Your task to perform on an android device: Clear all items from cart on newegg.com. Add "usb-a to usb-b" to the cart on newegg.com, then select checkout. Image 0: 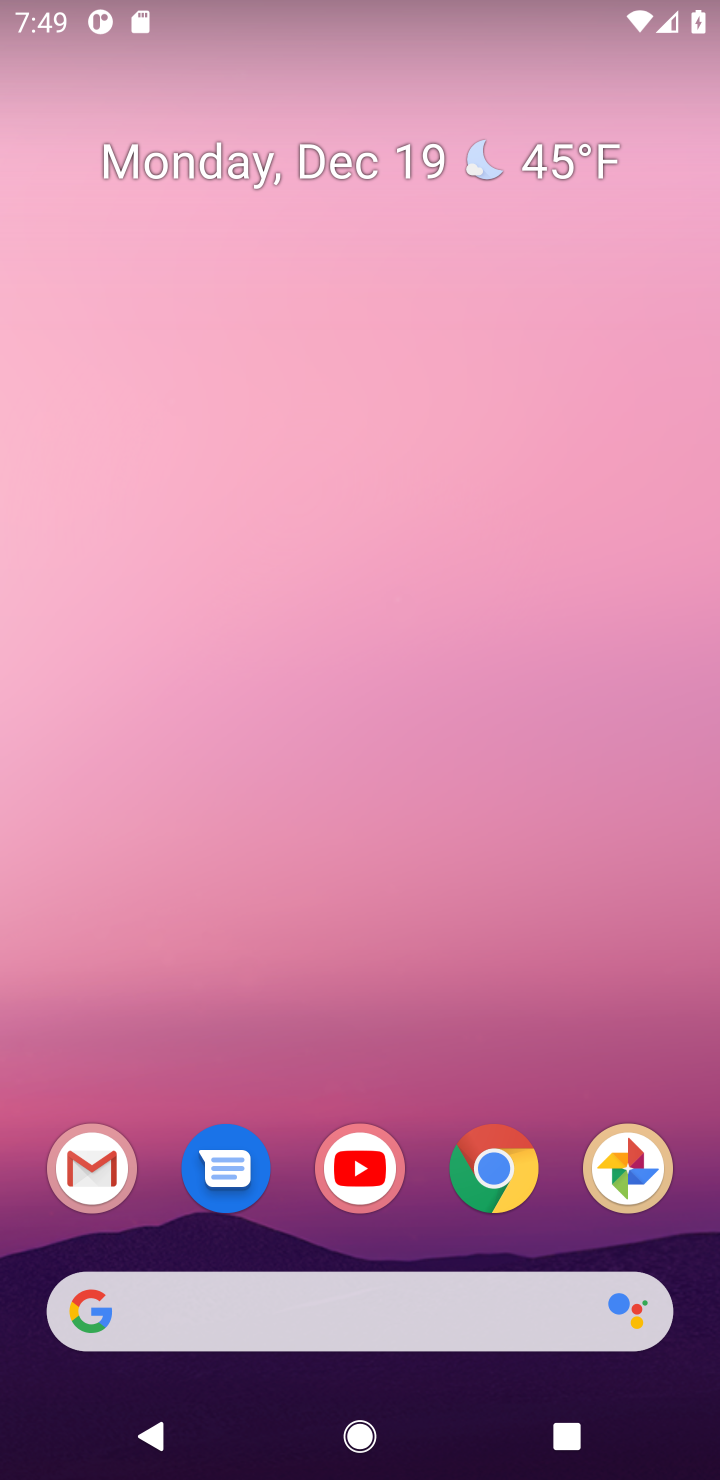
Step 0: click (499, 1162)
Your task to perform on an android device: Clear all items from cart on newegg.com. Add "usb-a to usb-b" to the cart on newegg.com, then select checkout. Image 1: 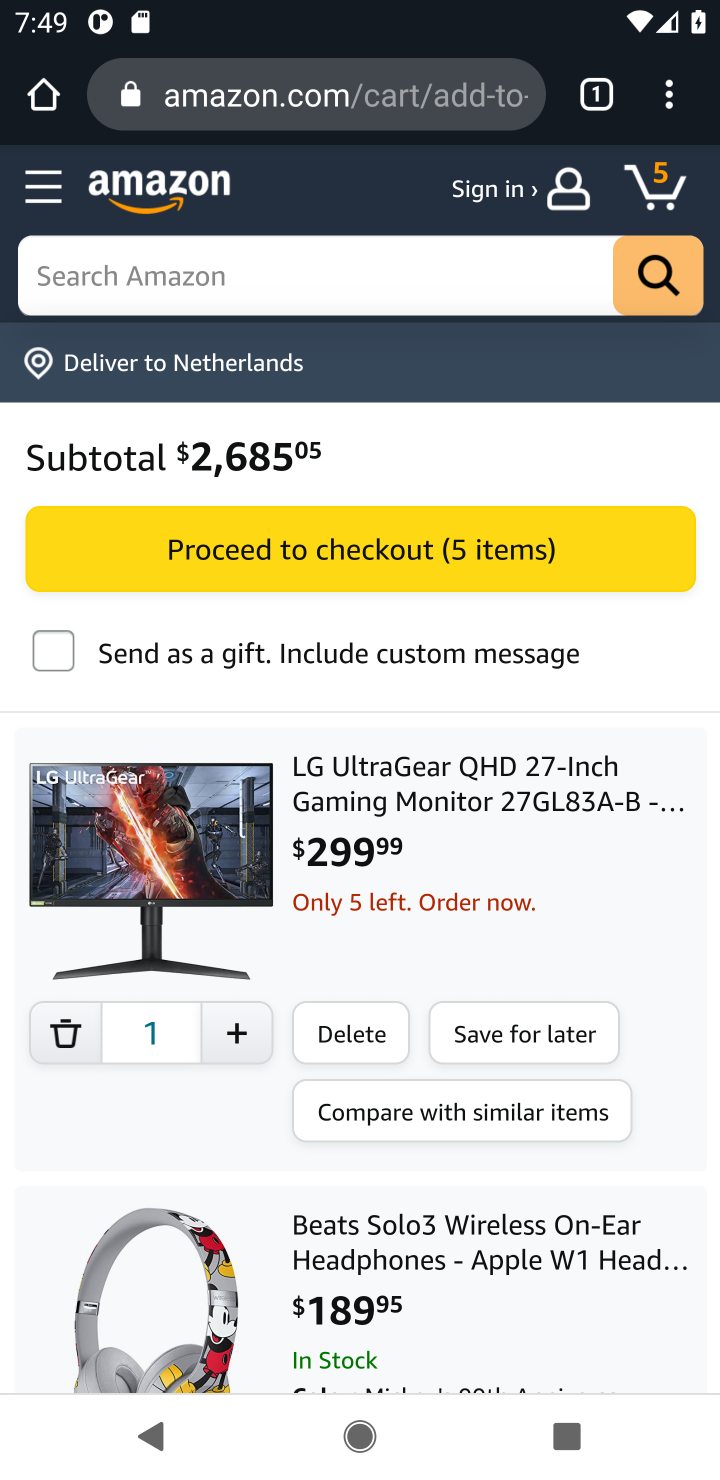
Step 1: click (269, 105)
Your task to perform on an android device: Clear all items from cart on newegg.com. Add "usb-a to usb-b" to the cart on newegg.com, then select checkout. Image 2: 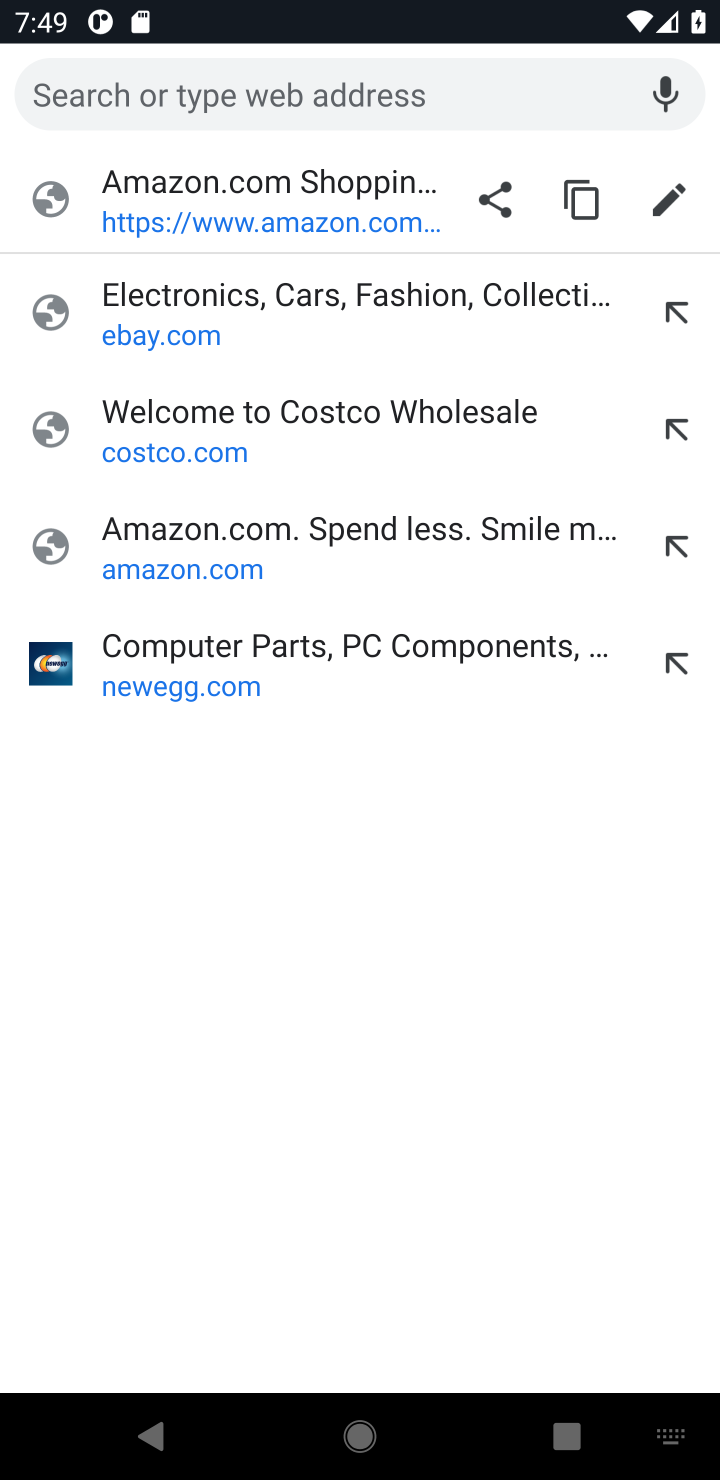
Step 2: click (143, 655)
Your task to perform on an android device: Clear all items from cart on newegg.com. Add "usb-a to usb-b" to the cart on newegg.com, then select checkout. Image 3: 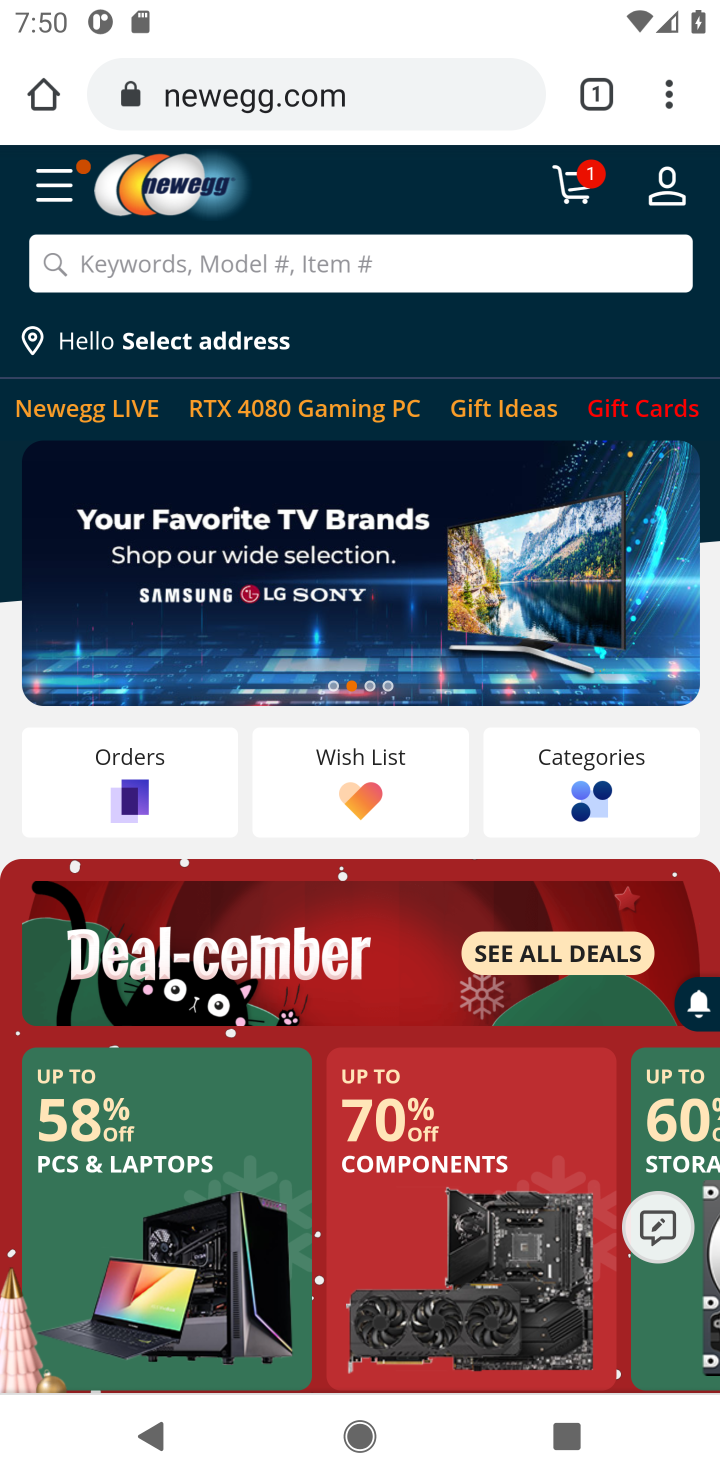
Step 3: click (572, 196)
Your task to perform on an android device: Clear all items from cart on newegg.com. Add "usb-a to usb-b" to the cart on newegg.com, then select checkout. Image 4: 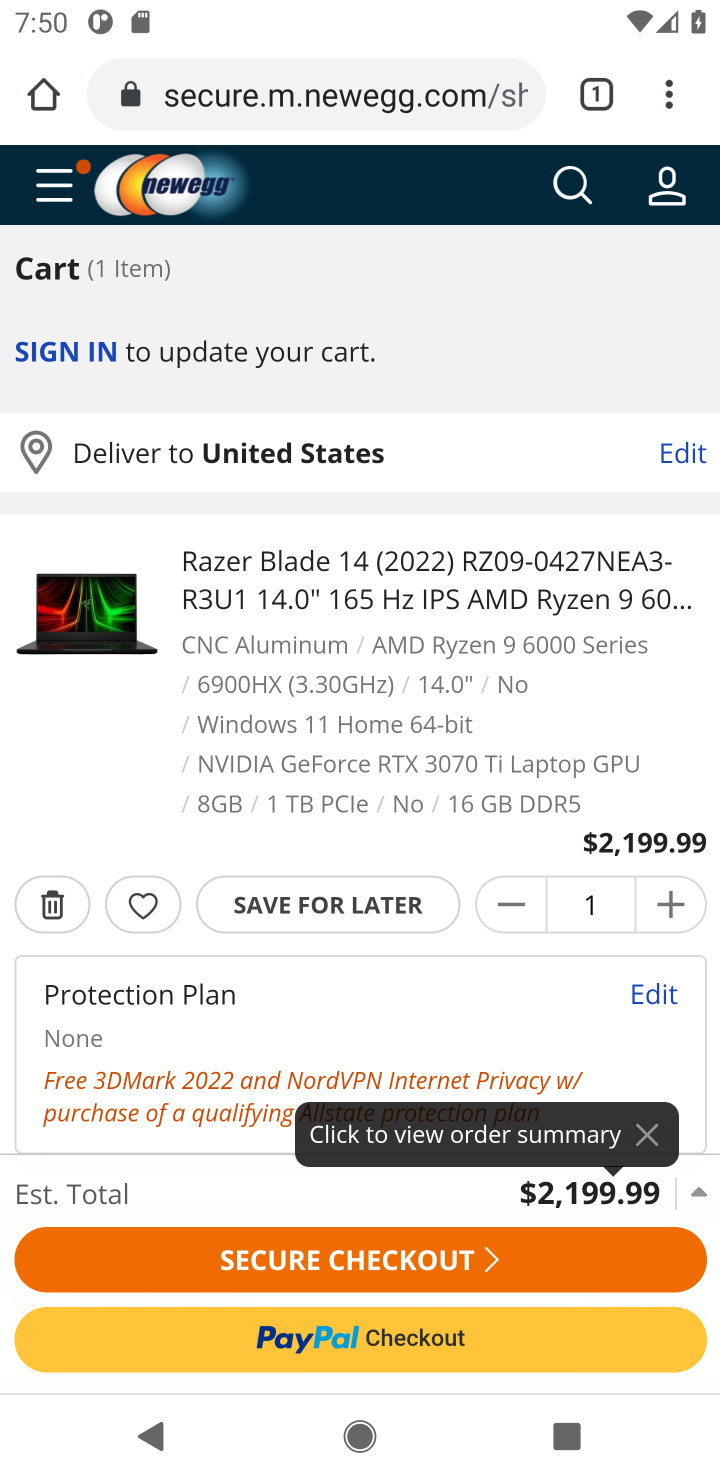
Step 4: click (50, 905)
Your task to perform on an android device: Clear all items from cart on newegg.com. Add "usb-a to usb-b" to the cart on newegg.com, then select checkout. Image 5: 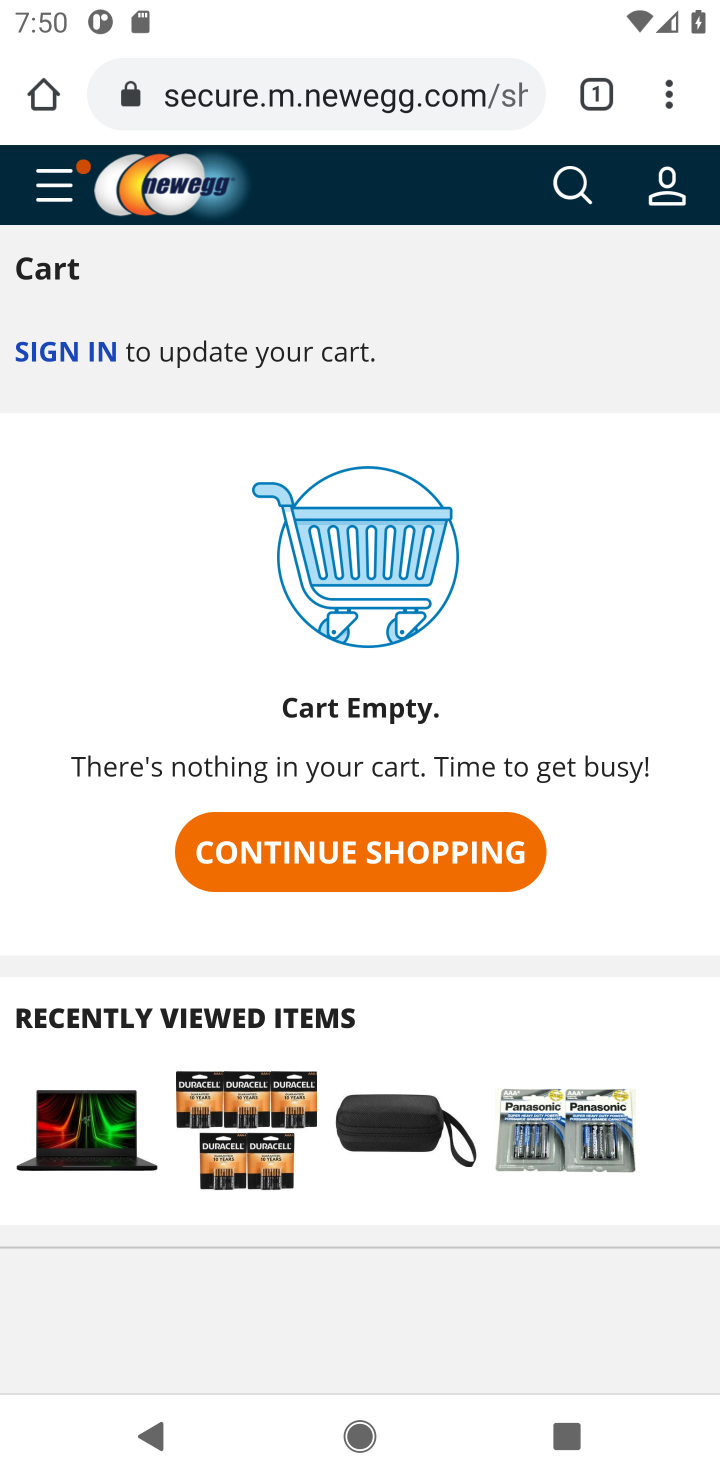
Step 5: click (560, 192)
Your task to perform on an android device: Clear all items from cart on newegg.com. Add "usb-a to usb-b" to the cart on newegg.com, then select checkout. Image 6: 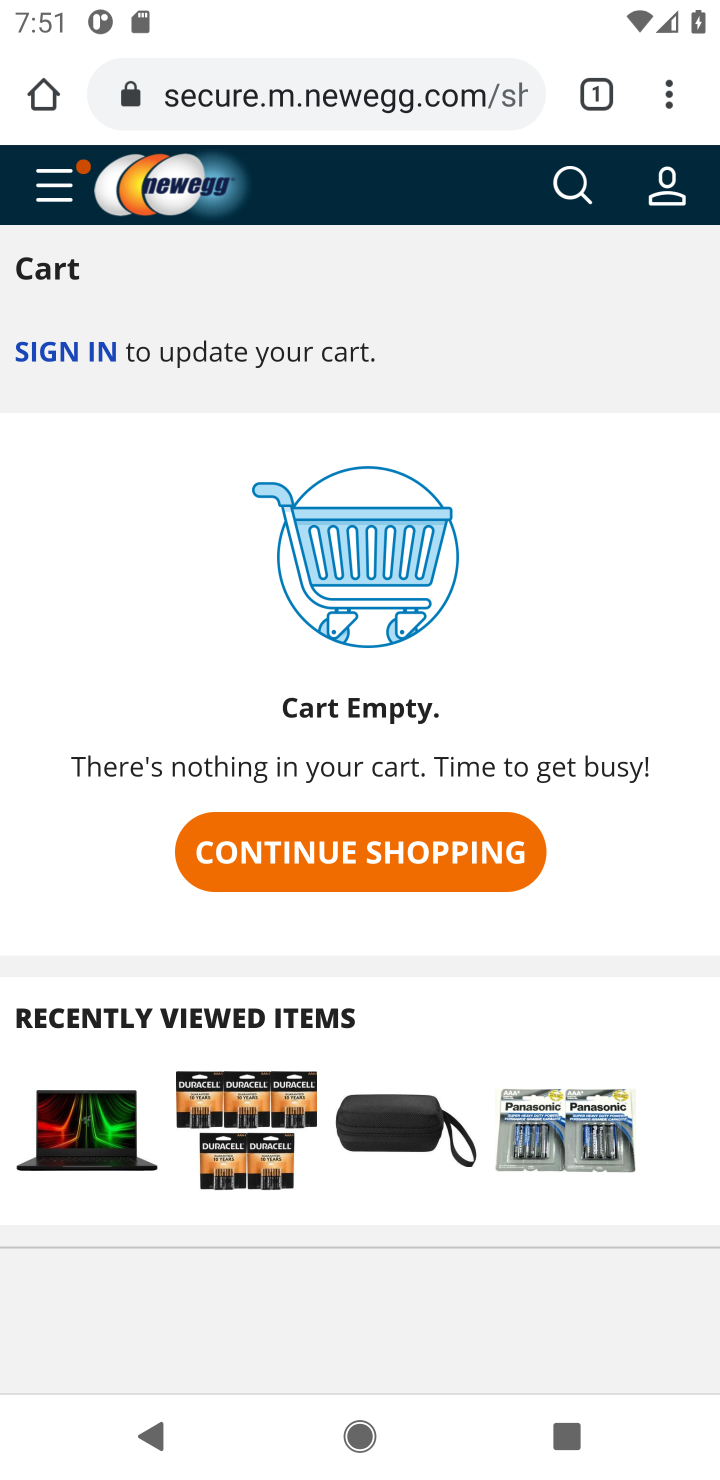
Step 6: click (560, 192)
Your task to perform on an android device: Clear all items from cart on newegg.com. Add "usb-a to usb-b" to the cart on newegg.com, then select checkout. Image 7: 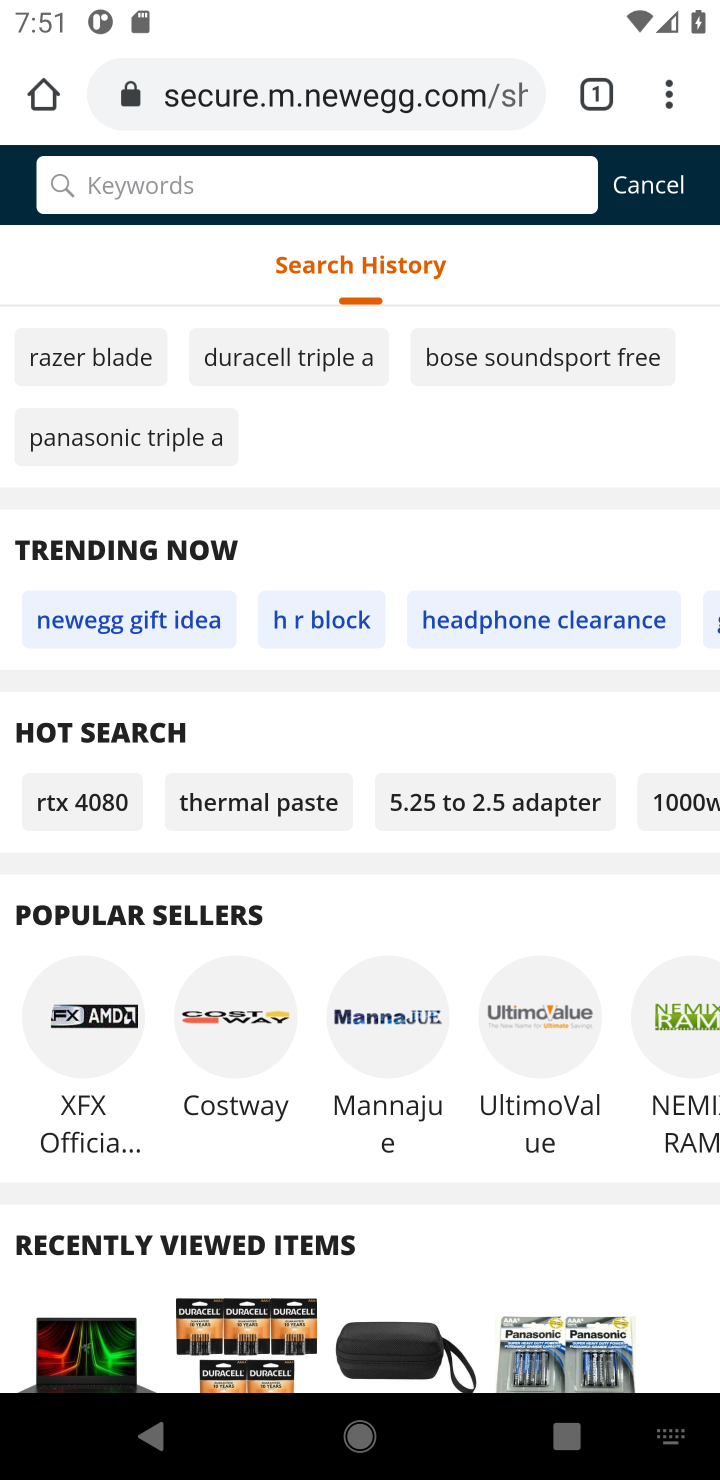
Step 7: type "usb-a to usb-b"
Your task to perform on an android device: Clear all items from cart on newegg.com. Add "usb-a to usb-b" to the cart on newegg.com, then select checkout. Image 8: 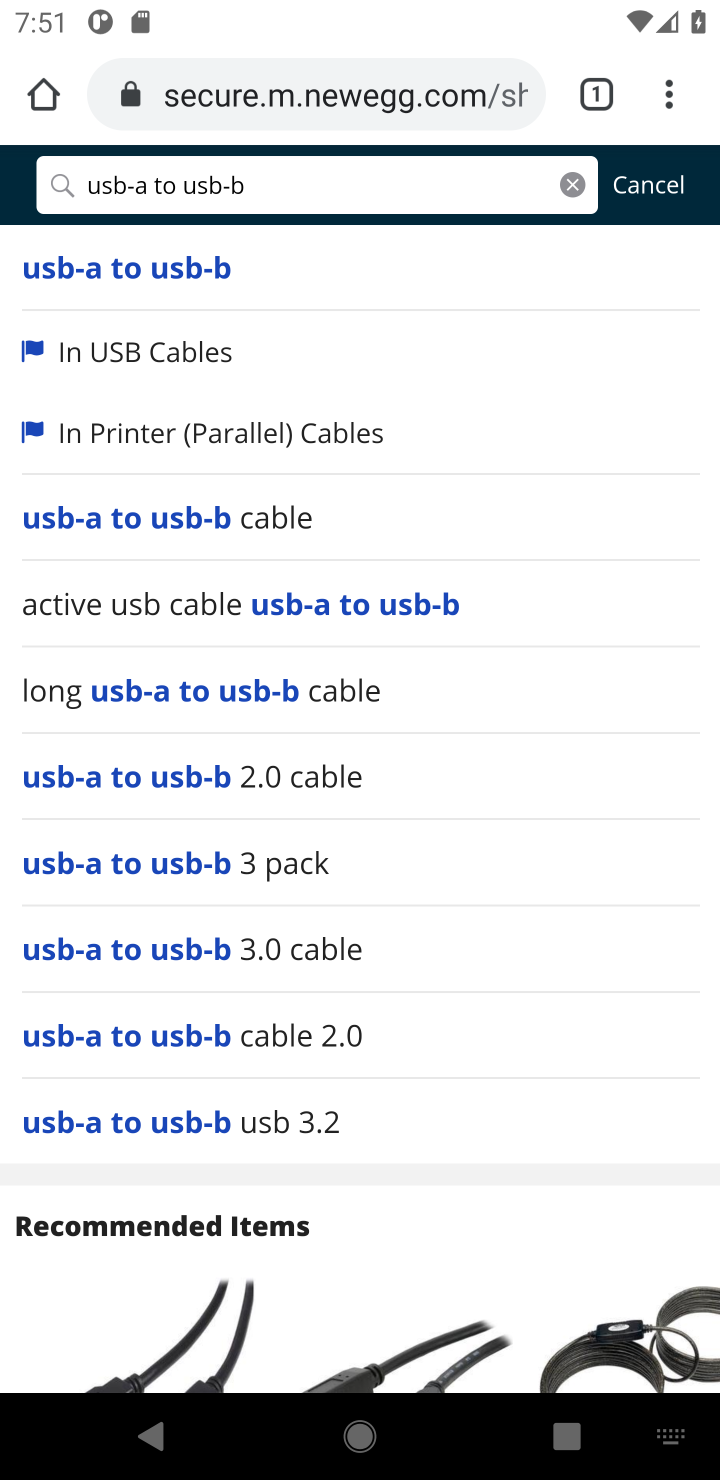
Step 8: click (189, 279)
Your task to perform on an android device: Clear all items from cart on newegg.com. Add "usb-a to usb-b" to the cart on newegg.com, then select checkout. Image 9: 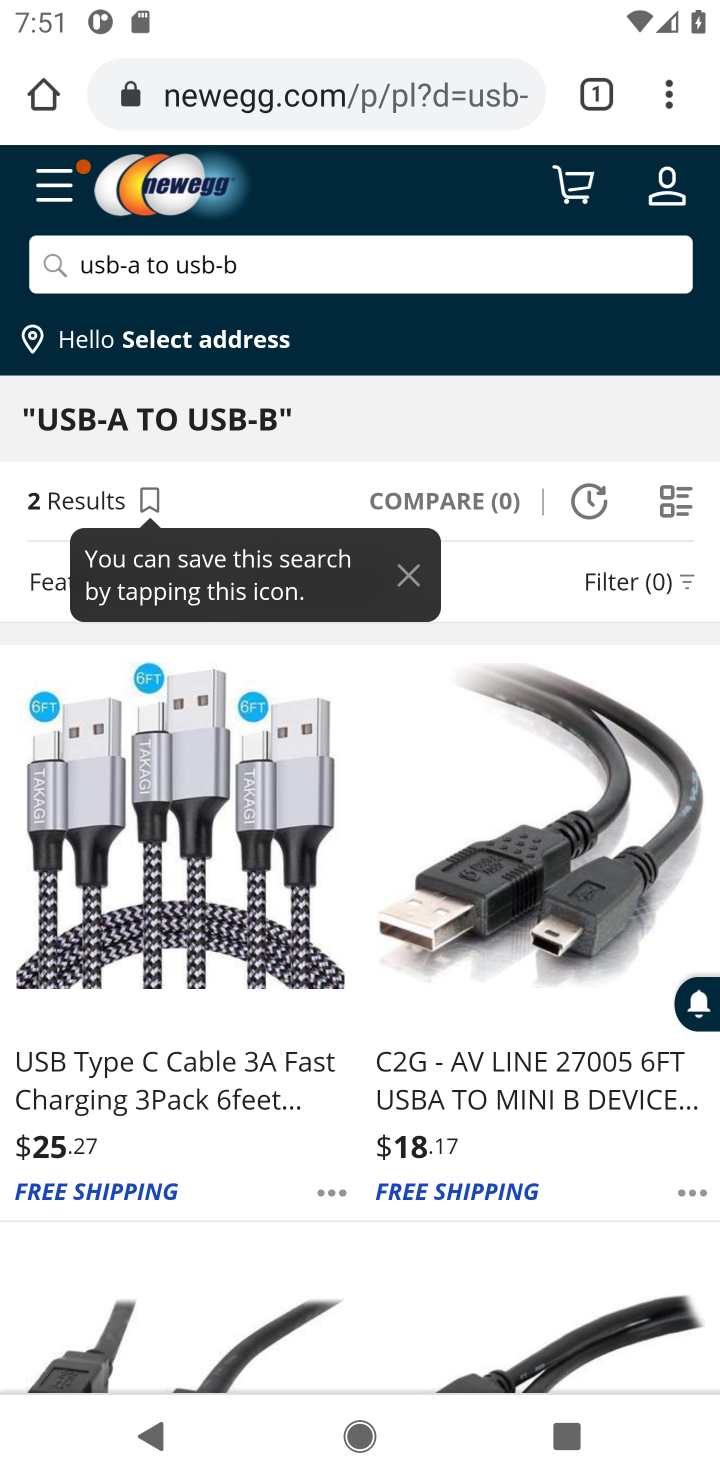
Step 9: drag from (200, 1169) to (161, 343)
Your task to perform on an android device: Clear all items from cart on newegg.com. Add "usb-a to usb-b" to the cart on newegg.com, then select checkout. Image 10: 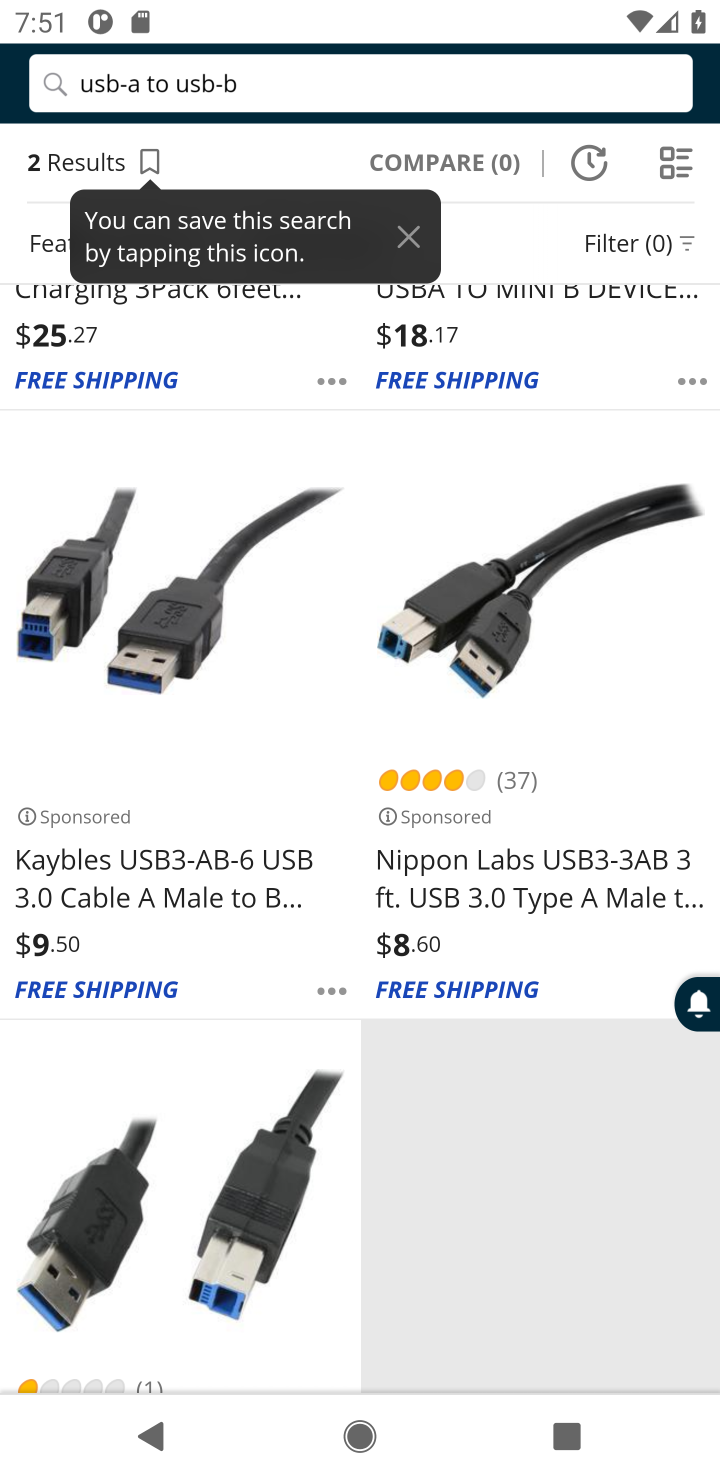
Step 10: drag from (237, 1136) to (221, 588)
Your task to perform on an android device: Clear all items from cart on newegg.com. Add "usb-a to usb-b" to the cart on newegg.com, then select checkout. Image 11: 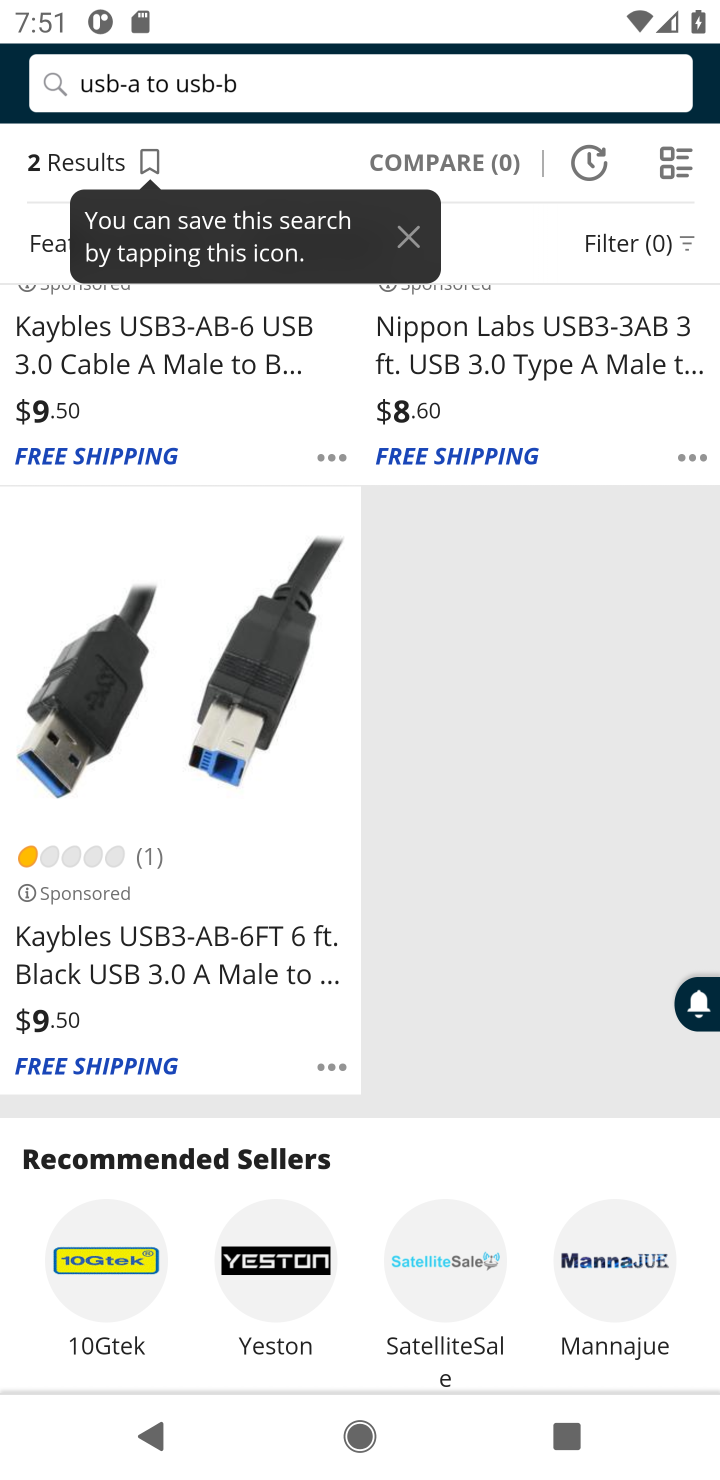
Step 11: drag from (214, 591) to (209, 1133)
Your task to perform on an android device: Clear all items from cart on newegg.com. Add "usb-a to usb-b" to the cart on newegg.com, then select checkout. Image 12: 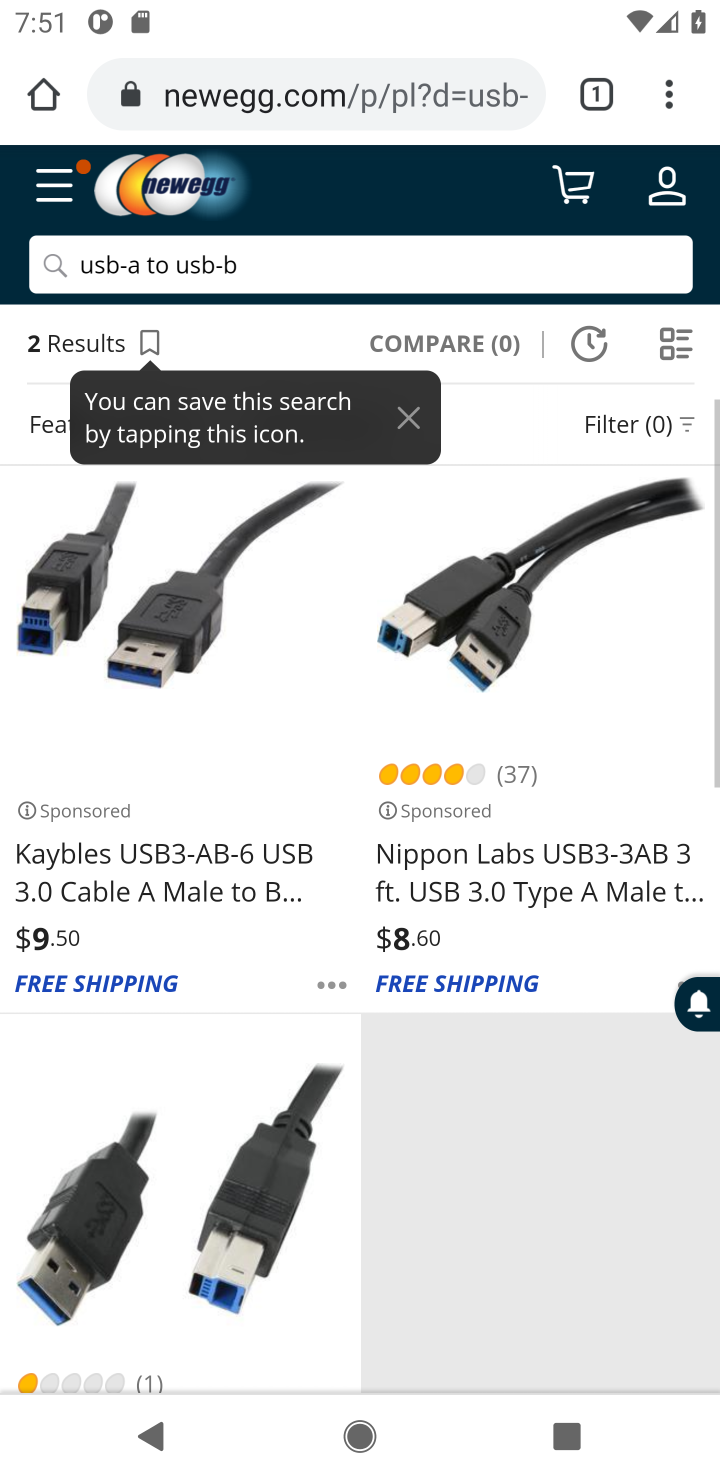
Step 12: drag from (207, 582) to (191, 985)
Your task to perform on an android device: Clear all items from cart on newegg.com. Add "usb-a to usb-b" to the cart on newegg.com, then select checkout. Image 13: 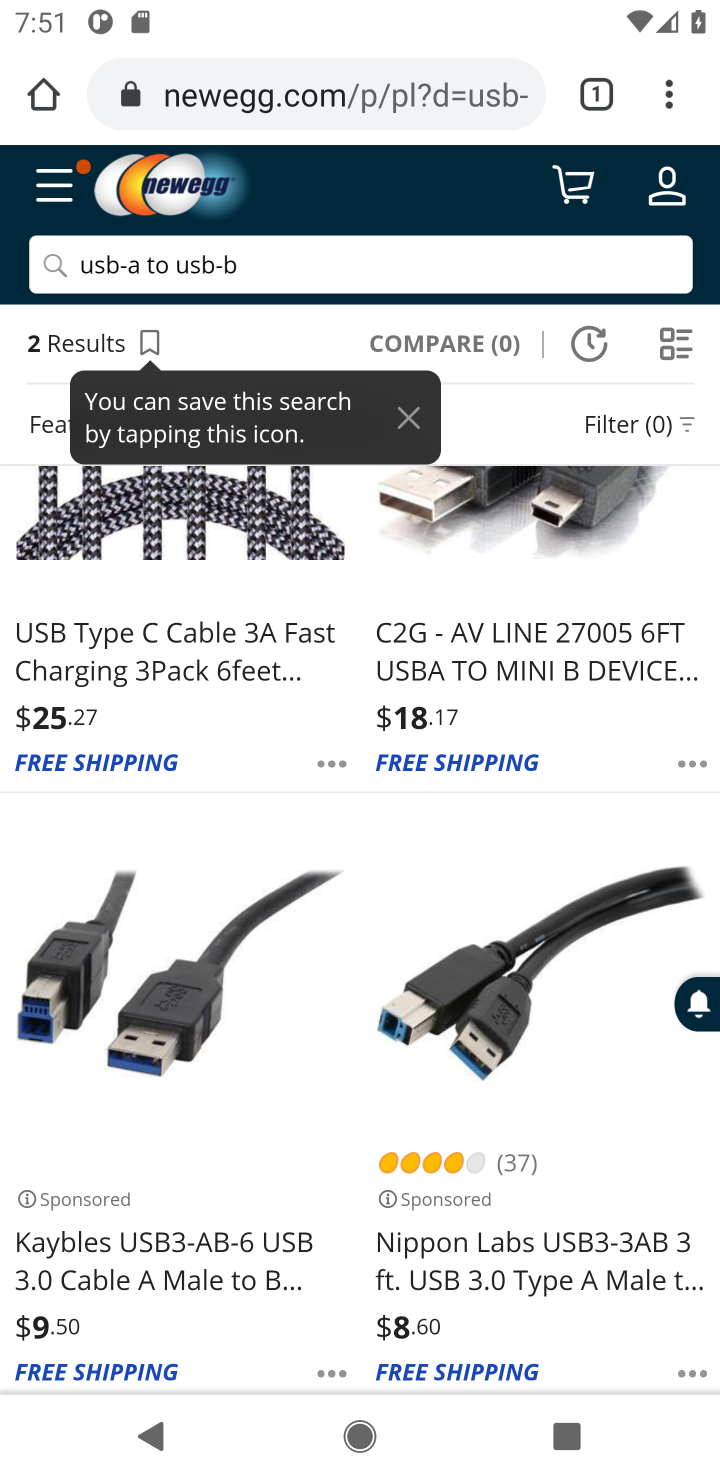
Step 13: drag from (164, 812) to (164, 1090)
Your task to perform on an android device: Clear all items from cart on newegg.com. Add "usb-a to usb-b" to the cart on newegg.com, then select checkout. Image 14: 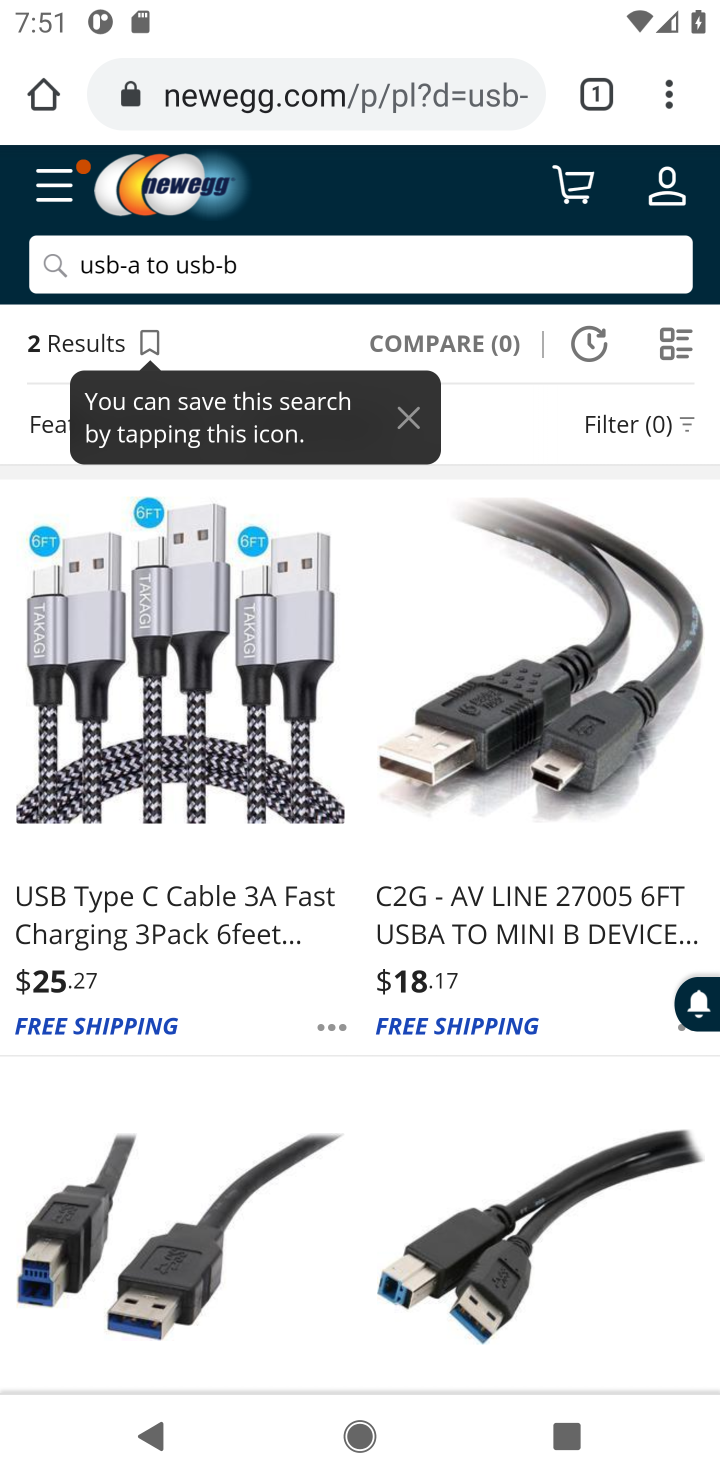
Step 14: drag from (480, 952) to (474, 498)
Your task to perform on an android device: Clear all items from cart on newegg.com. Add "usb-a to usb-b" to the cart on newegg.com, then select checkout. Image 15: 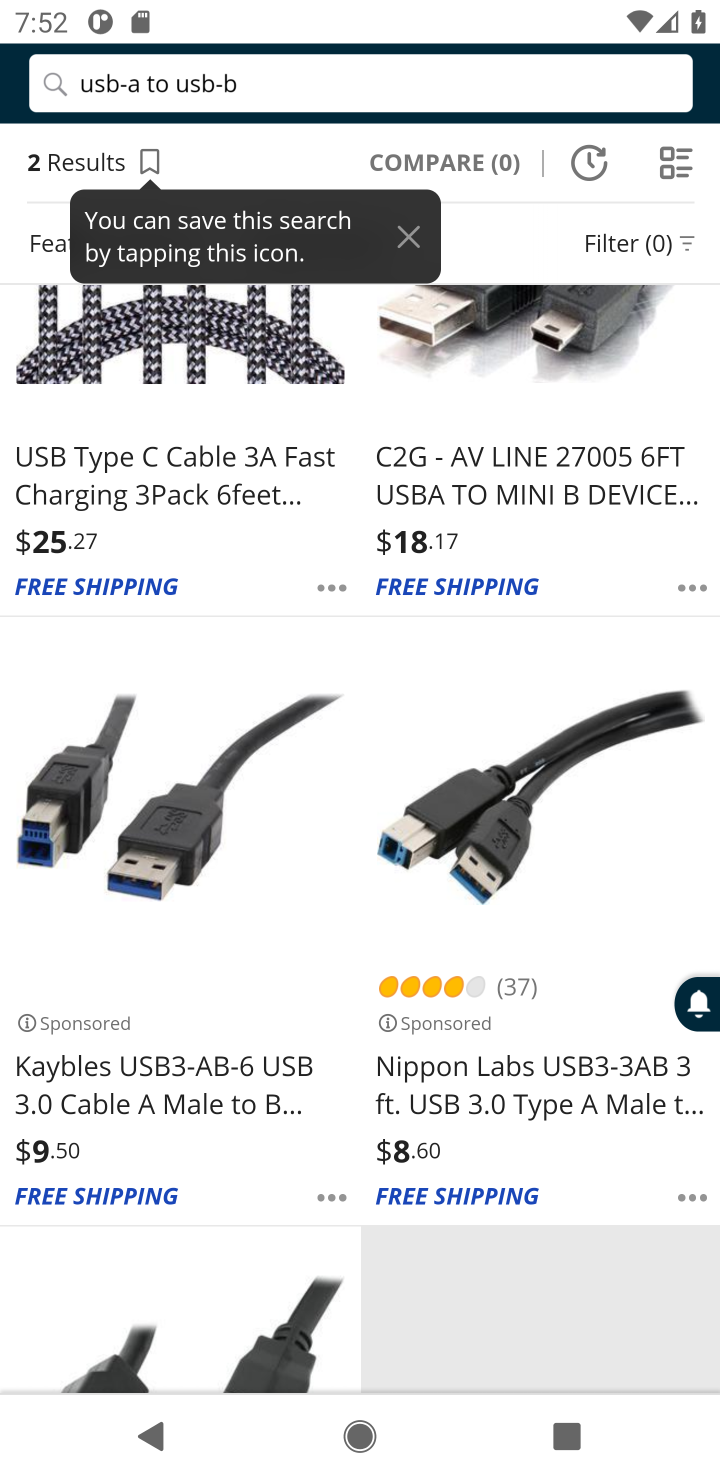
Step 15: click (80, 1066)
Your task to perform on an android device: Clear all items from cart on newegg.com. Add "usb-a to usb-b" to the cart on newegg.com, then select checkout. Image 16: 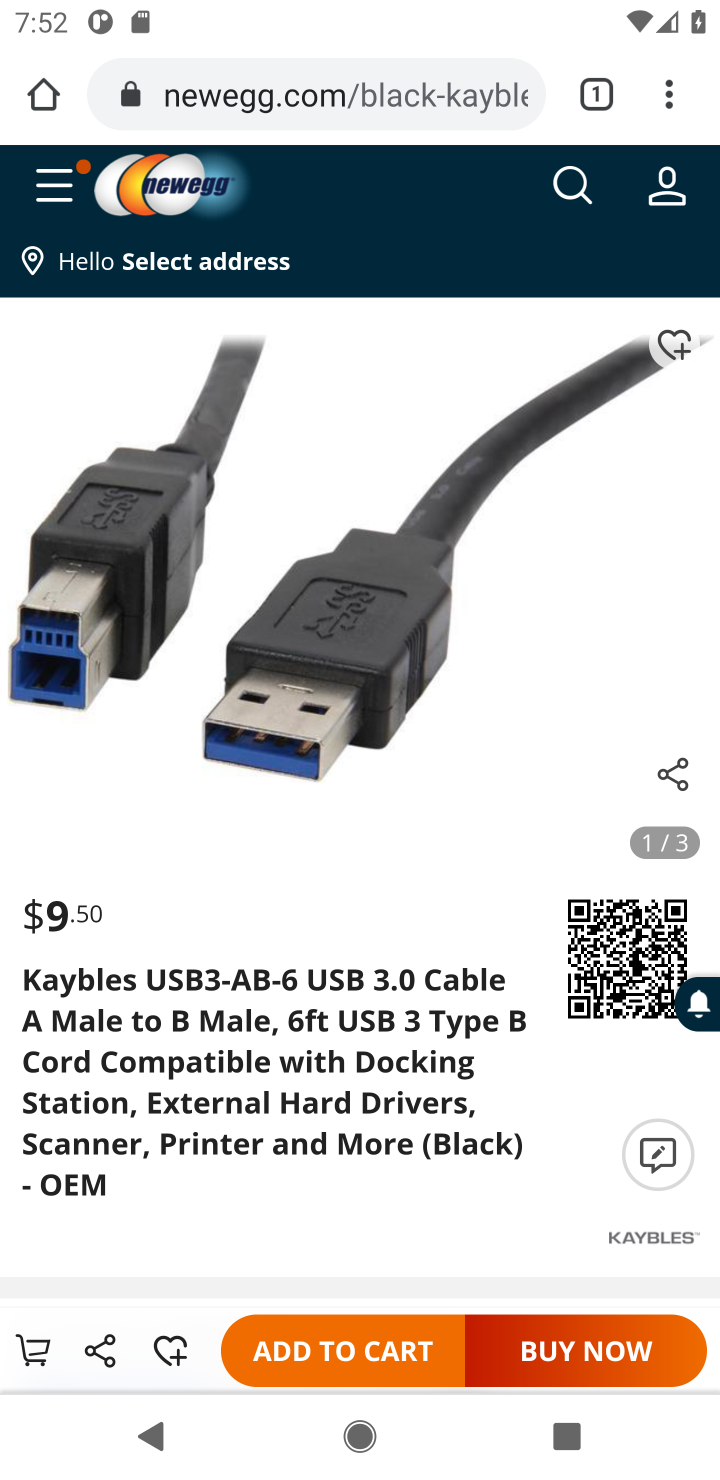
Step 16: press back button
Your task to perform on an android device: Clear all items from cart on newegg.com. Add "usb-a to usb-b" to the cart on newegg.com, then select checkout. Image 17: 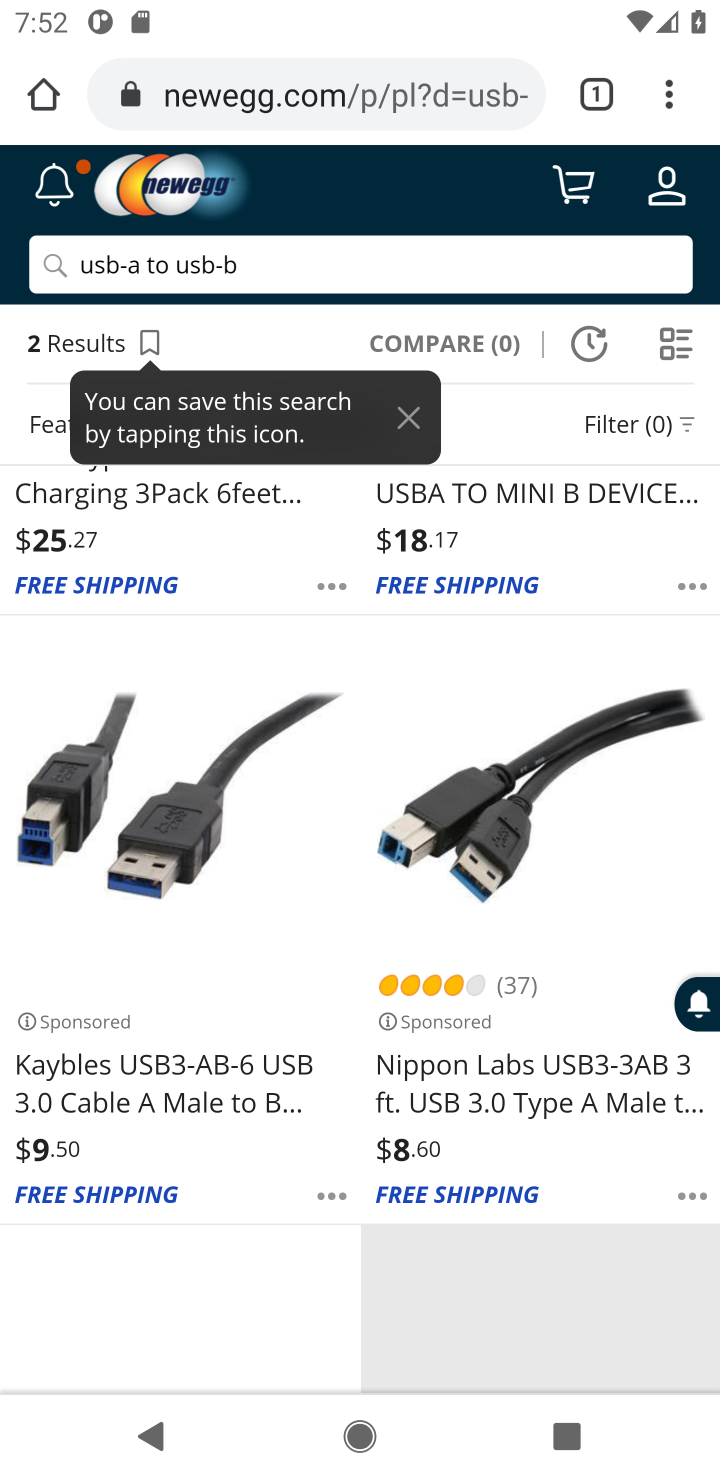
Step 17: drag from (434, 1053) to (417, 634)
Your task to perform on an android device: Clear all items from cart on newegg.com. Add "usb-a to usb-b" to the cart on newegg.com, then select checkout. Image 18: 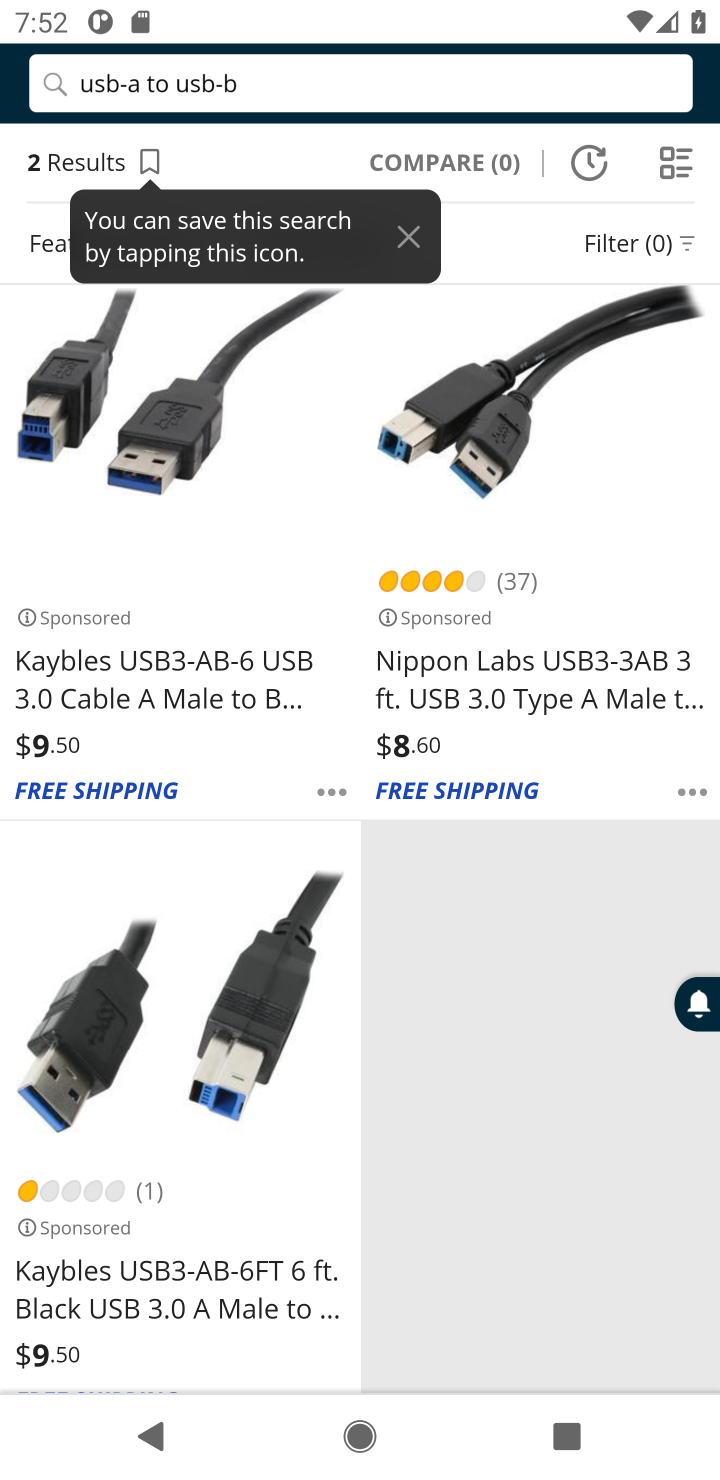
Step 18: click (543, 694)
Your task to perform on an android device: Clear all items from cart on newegg.com. Add "usb-a to usb-b" to the cart on newegg.com, then select checkout. Image 19: 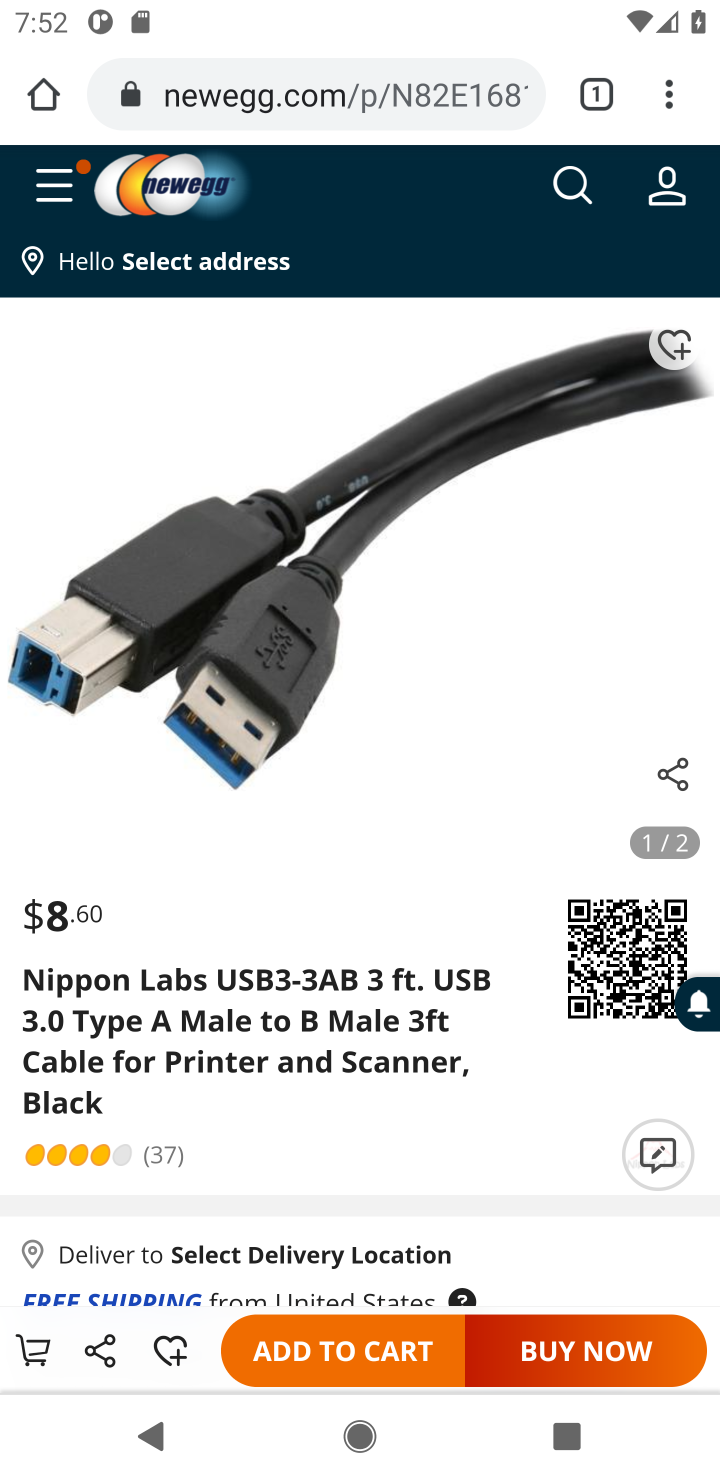
Step 19: press back button
Your task to perform on an android device: Clear all items from cart on newegg.com. Add "usb-a to usb-b" to the cart on newegg.com, then select checkout. Image 20: 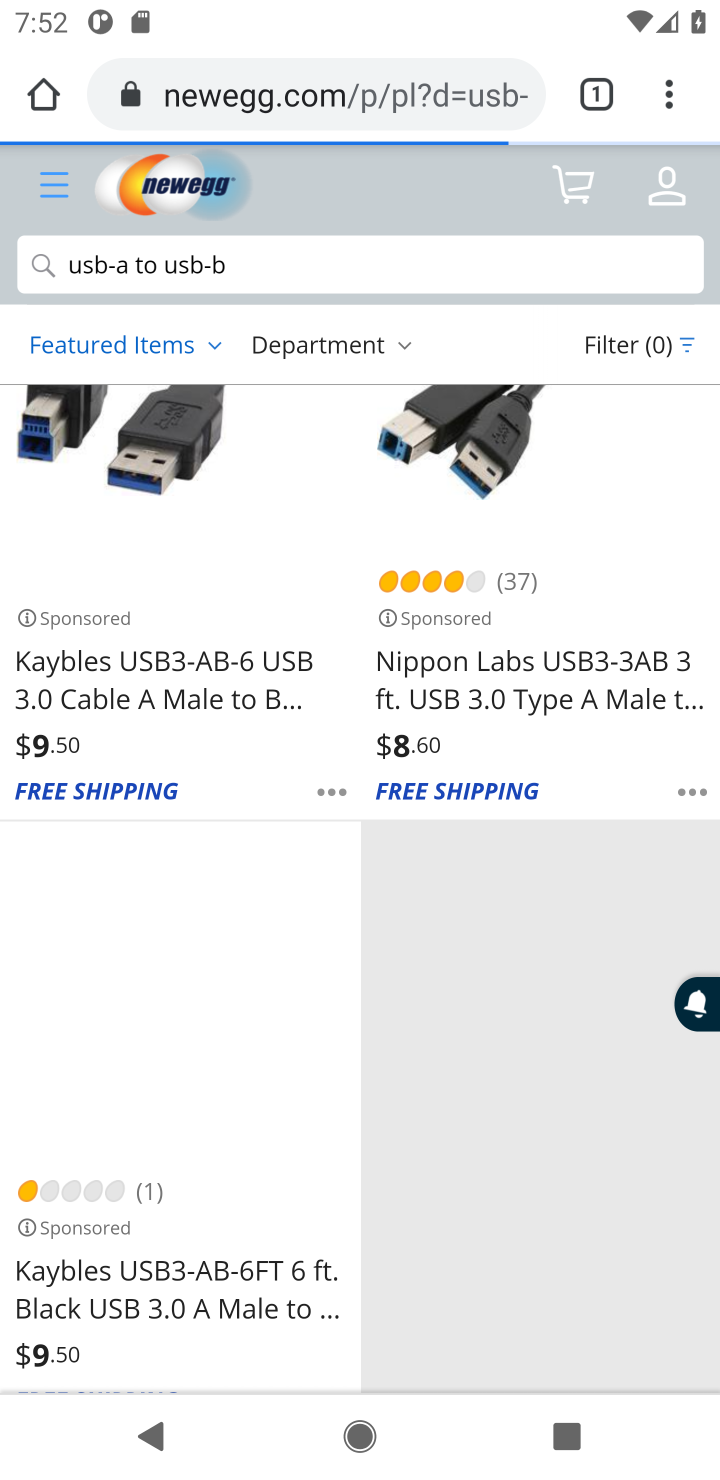
Step 20: drag from (308, 1004) to (298, 686)
Your task to perform on an android device: Clear all items from cart on newegg.com. Add "usb-a to usb-b" to the cart on newegg.com, then select checkout. Image 21: 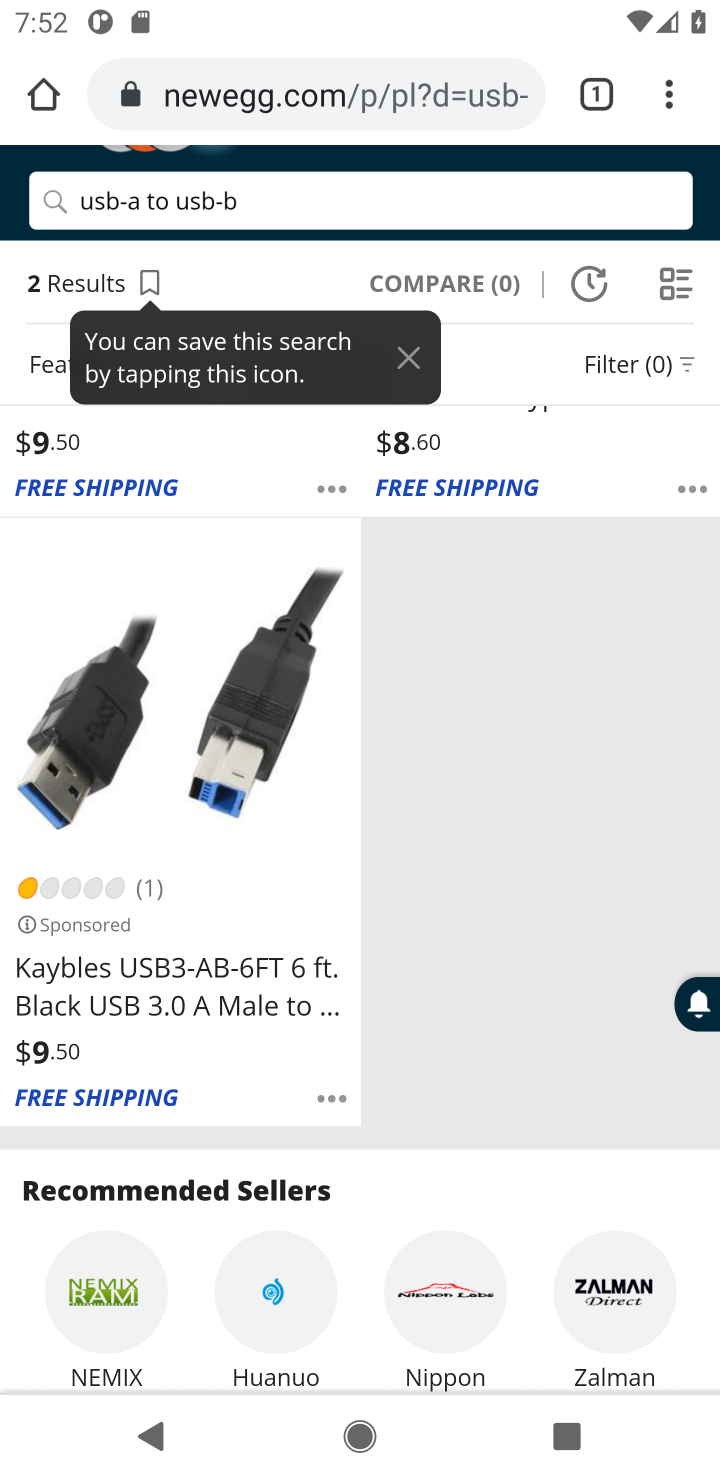
Step 21: click (174, 982)
Your task to perform on an android device: Clear all items from cart on newegg.com. Add "usb-a to usb-b" to the cart on newegg.com, then select checkout. Image 22: 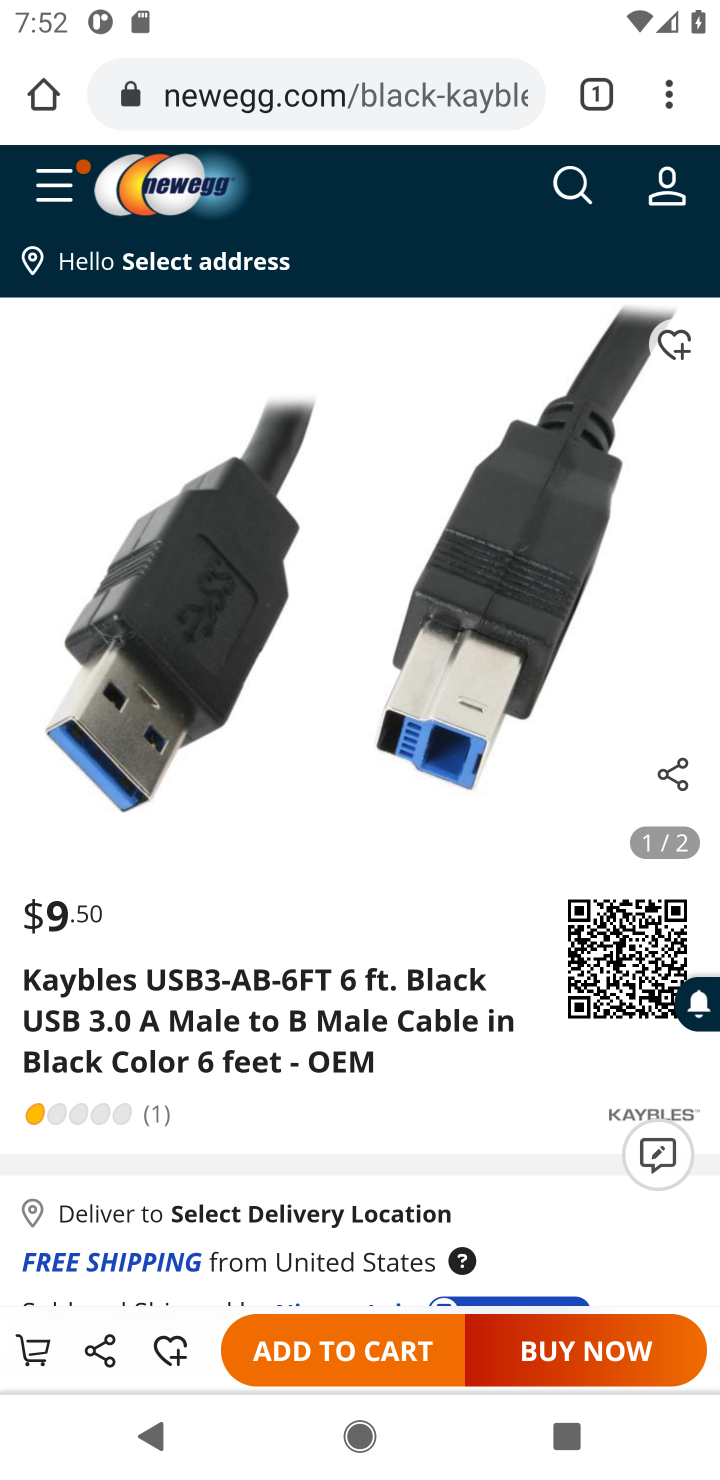
Step 22: click (308, 1351)
Your task to perform on an android device: Clear all items from cart on newegg.com. Add "usb-a to usb-b" to the cart on newegg.com, then select checkout. Image 23: 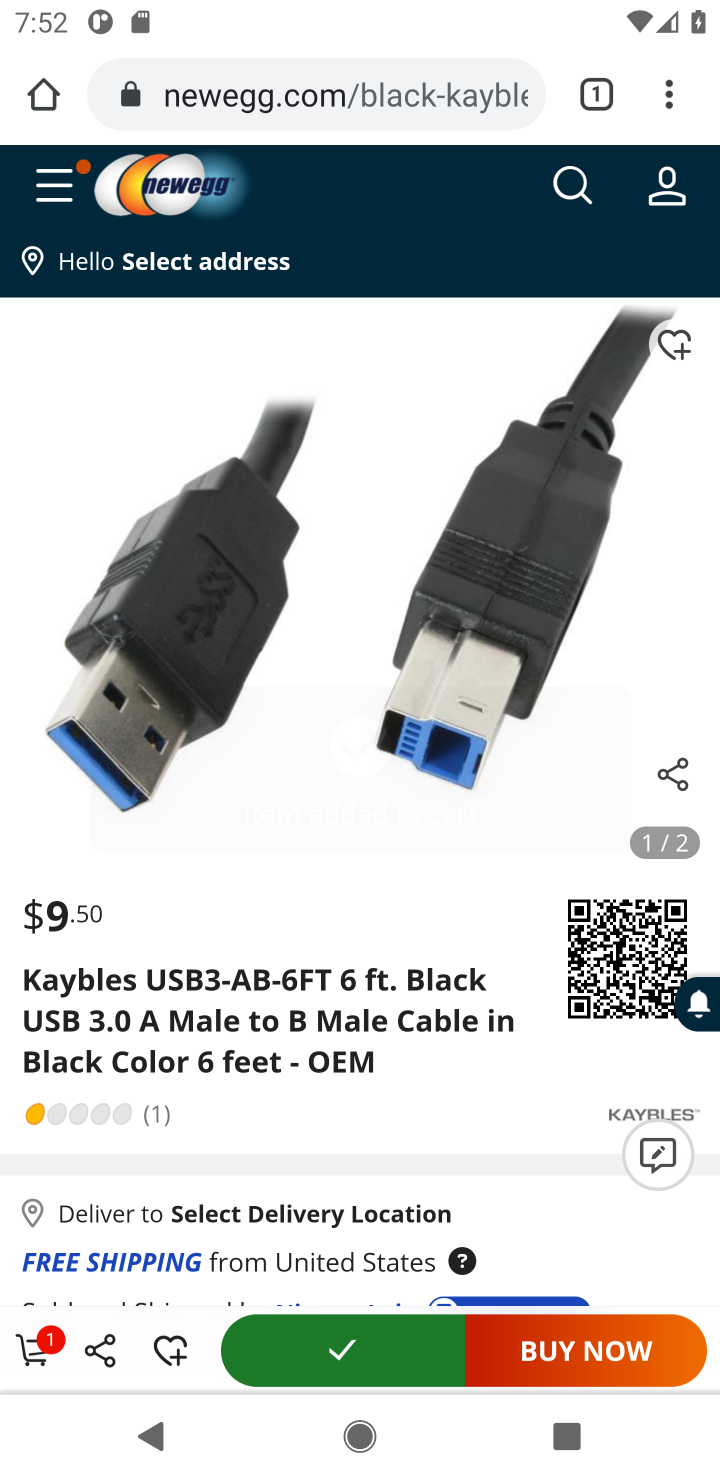
Step 23: click (52, 1351)
Your task to perform on an android device: Clear all items from cart on newegg.com. Add "usb-a to usb-b" to the cart on newegg.com, then select checkout. Image 24: 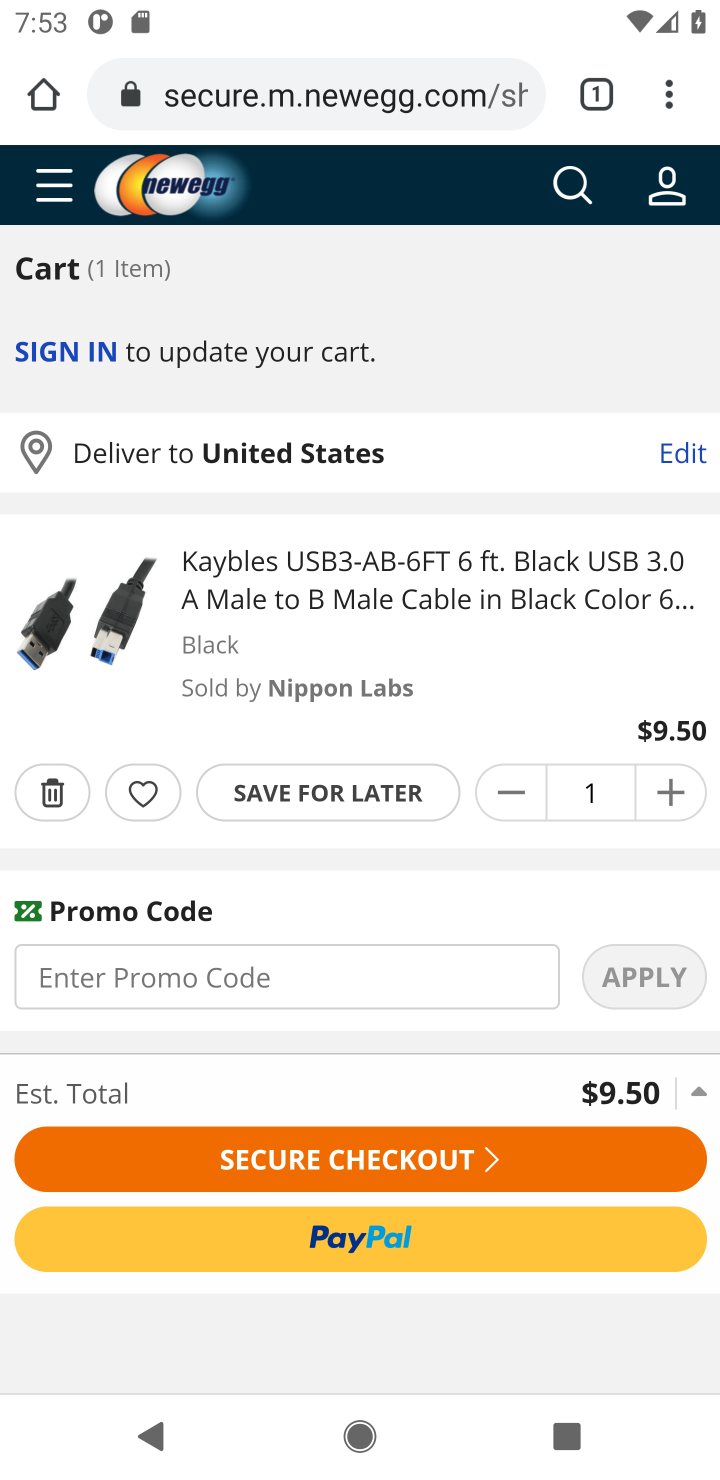
Step 24: click (311, 1174)
Your task to perform on an android device: Clear all items from cart on newegg.com. Add "usb-a to usb-b" to the cart on newegg.com, then select checkout. Image 25: 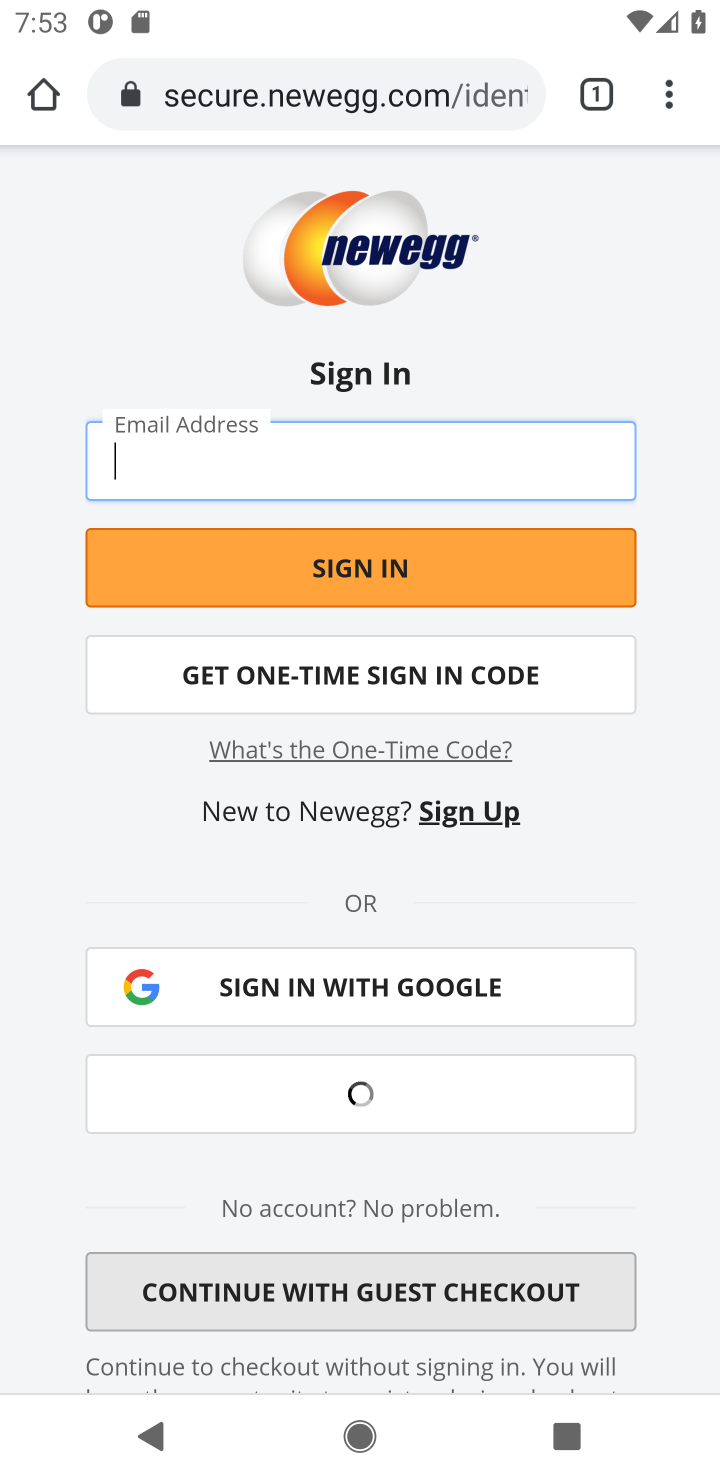
Step 25: task complete